Your task to perform on an android device: turn on javascript in the chrome app Image 0: 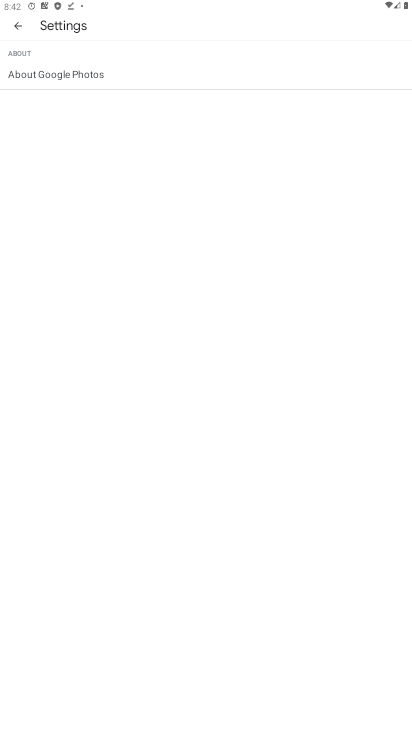
Step 0: press home button
Your task to perform on an android device: turn on javascript in the chrome app Image 1: 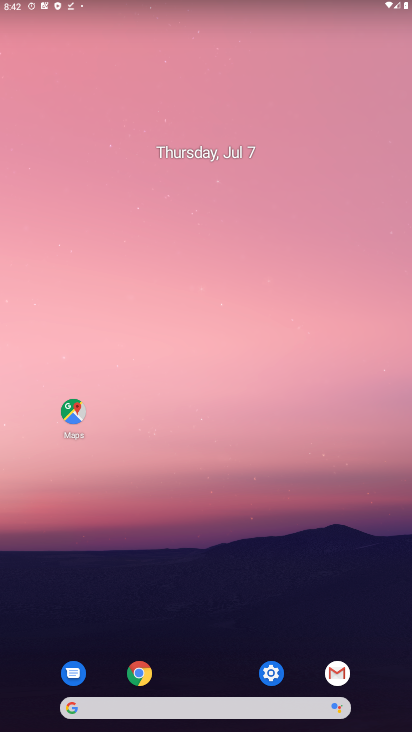
Step 1: click (154, 662)
Your task to perform on an android device: turn on javascript in the chrome app Image 2: 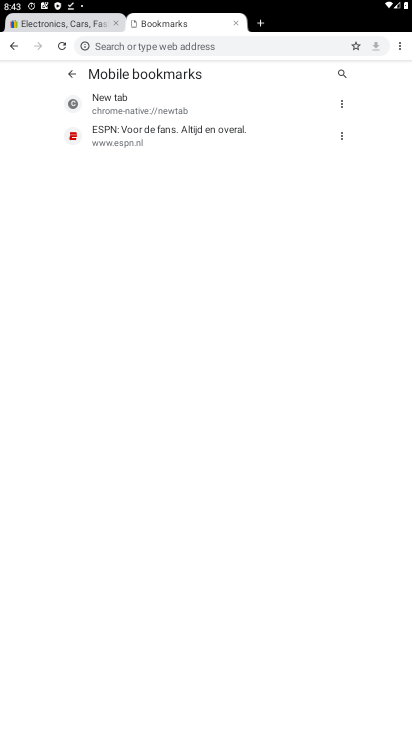
Step 2: click (399, 50)
Your task to perform on an android device: turn on javascript in the chrome app Image 3: 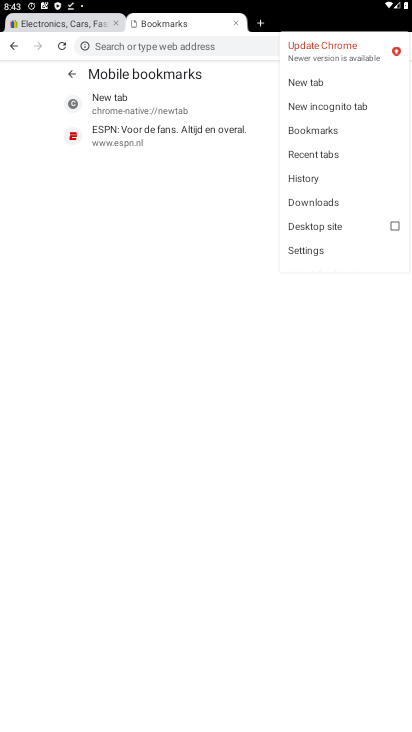
Step 3: click (305, 246)
Your task to perform on an android device: turn on javascript in the chrome app Image 4: 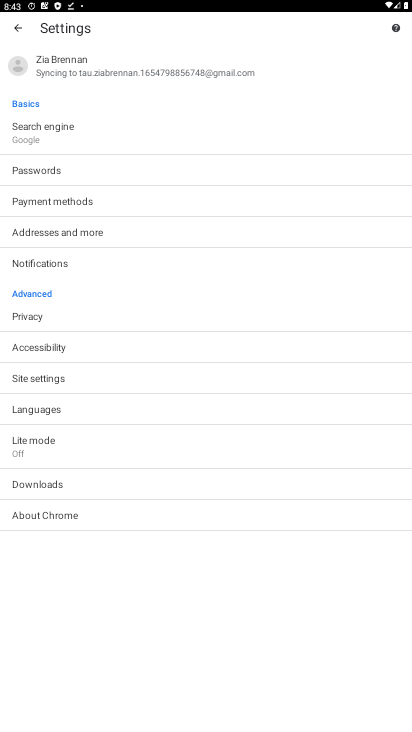
Step 4: click (58, 376)
Your task to perform on an android device: turn on javascript in the chrome app Image 5: 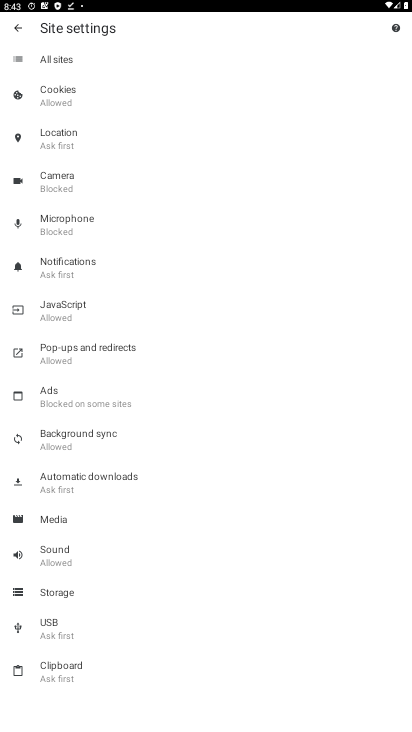
Step 5: click (96, 308)
Your task to perform on an android device: turn on javascript in the chrome app Image 6: 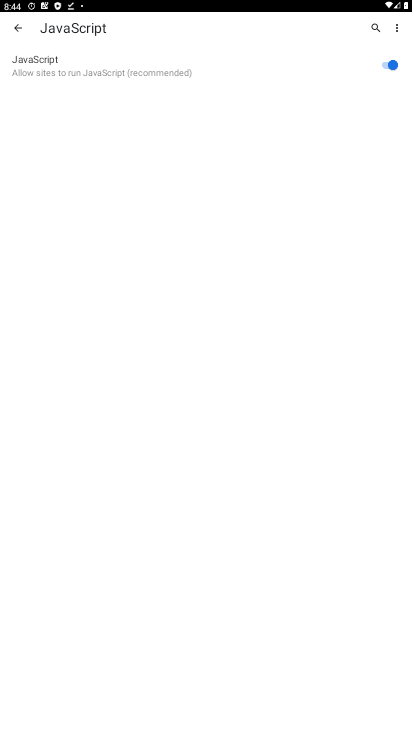
Step 6: task complete